Your task to perform on an android device: check out phone information Image 0: 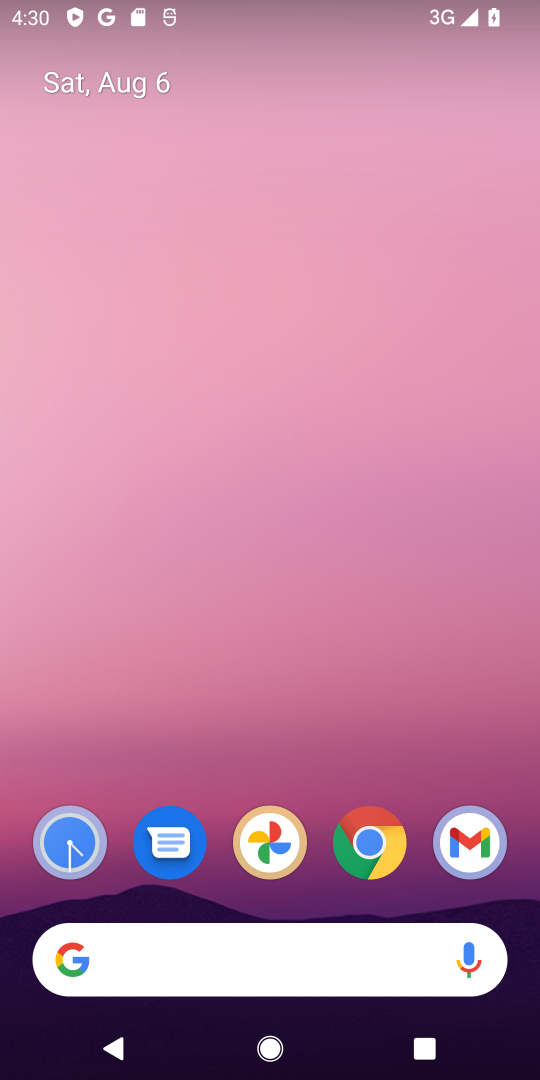
Step 0: drag from (533, 1054) to (348, 126)
Your task to perform on an android device: check out phone information Image 1: 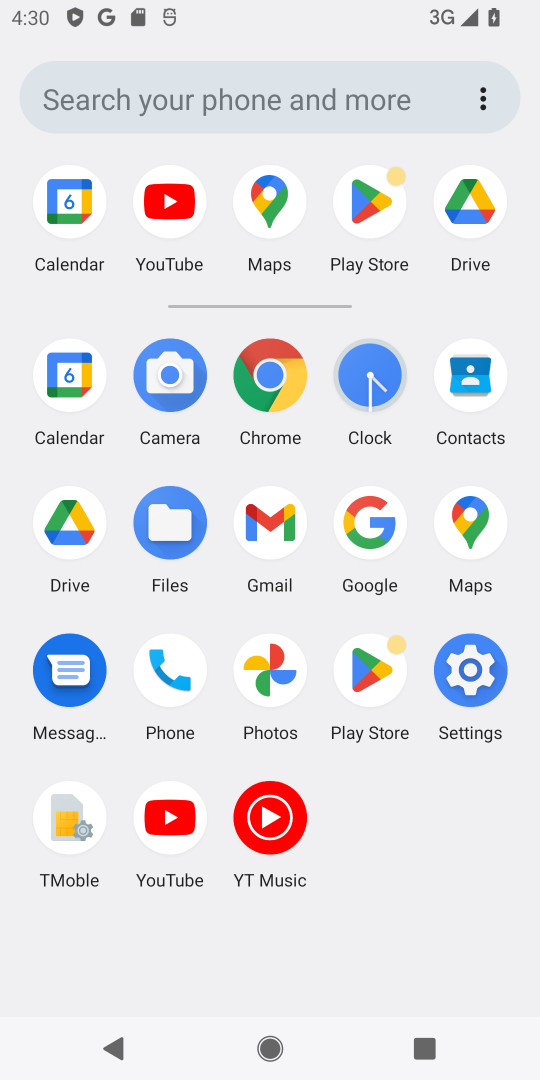
Step 1: click (470, 680)
Your task to perform on an android device: check out phone information Image 2: 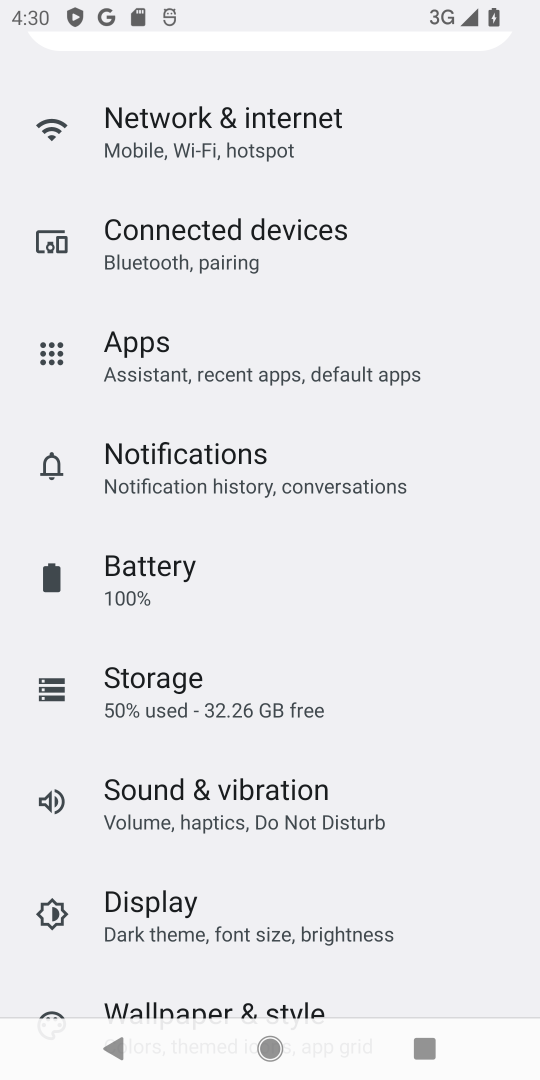
Step 2: drag from (438, 939) to (465, 399)
Your task to perform on an android device: check out phone information Image 3: 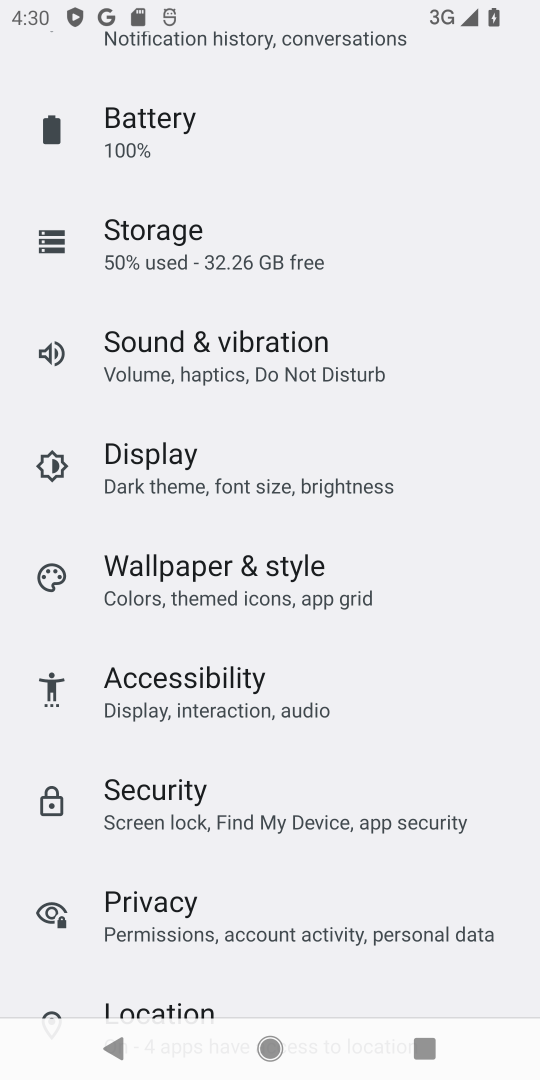
Step 3: drag from (424, 975) to (480, 403)
Your task to perform on an android device: check out phone information Image 4: 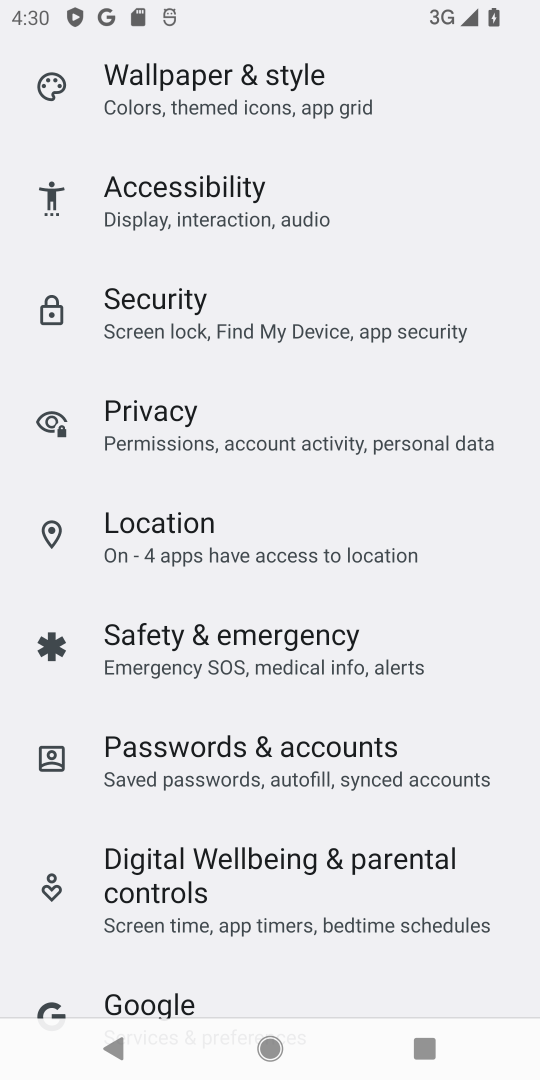
Step 4: drag from (439, 983) to (417, 235)
Your task to perform on an android device: check out phone information Image 5: 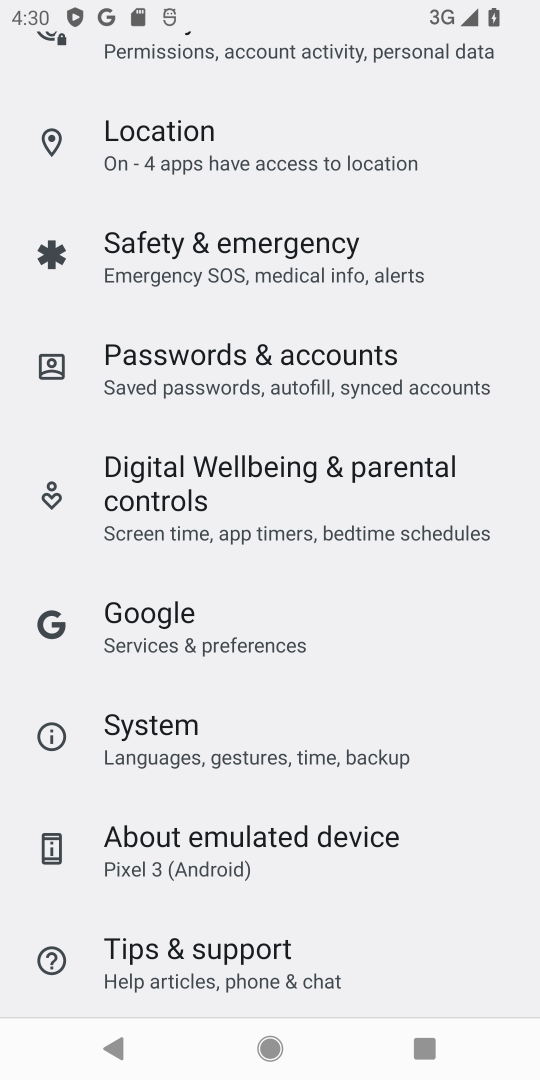
Step 5: drag from (472, 967) to (441, 381)
Your task to perform on an android device: check out phone information Image 6: 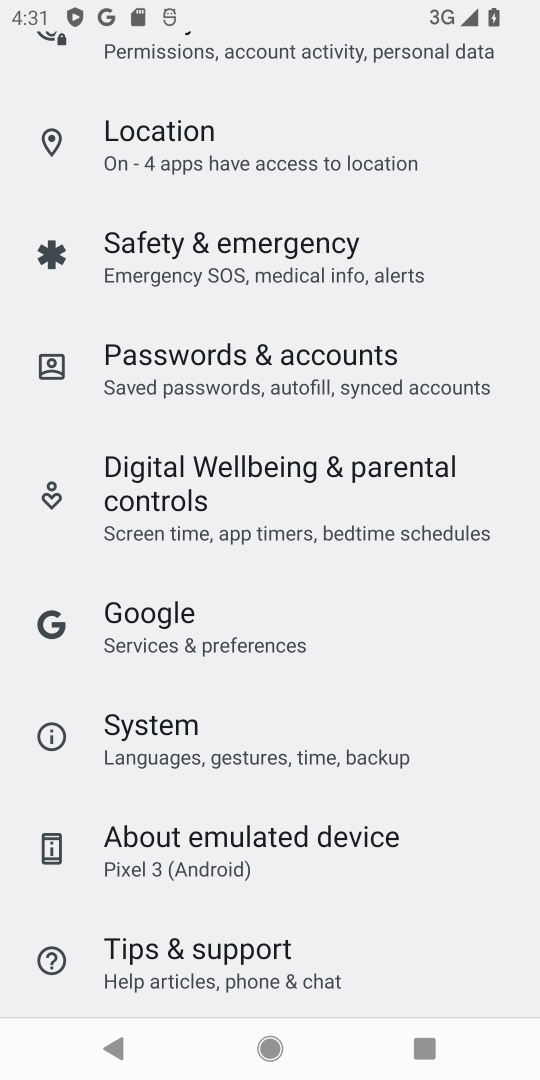
Step 6: click (216, 845)
Your task to perform on an android device: check out phone information Image 7: 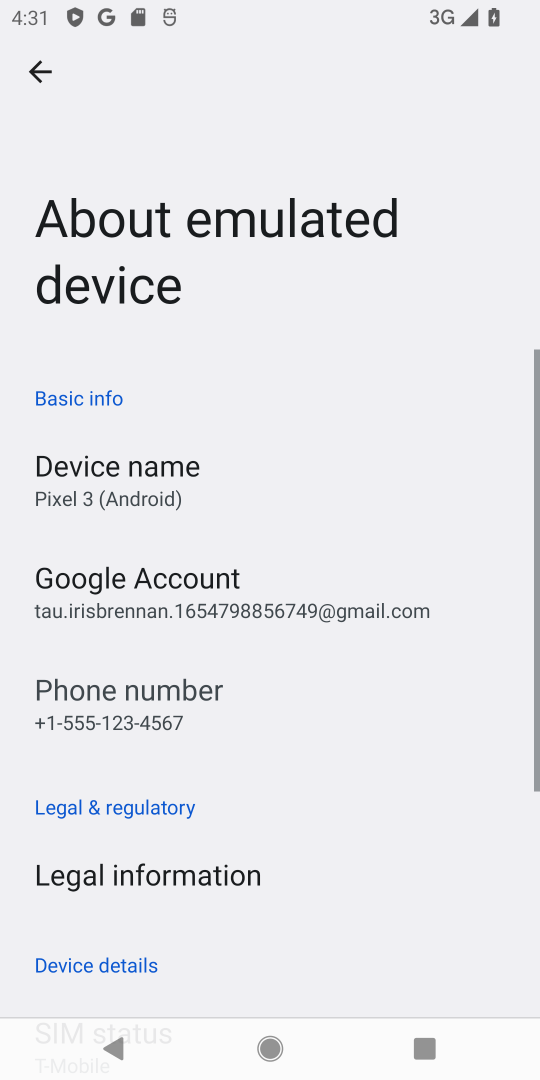
Step 7: task complete